Your task to perform on an android device: change notification settings in the gmail app Image 0: 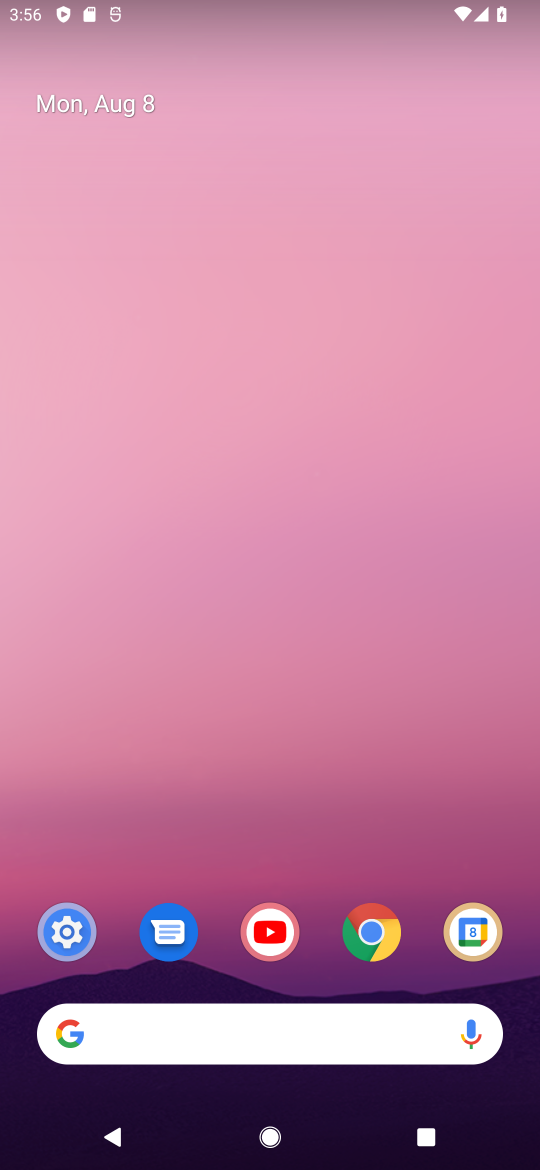
Step 0: drag from (172, 934) to (291, 487)
Your task to perform on an android device: change notification settings in the gmail app Image 1: 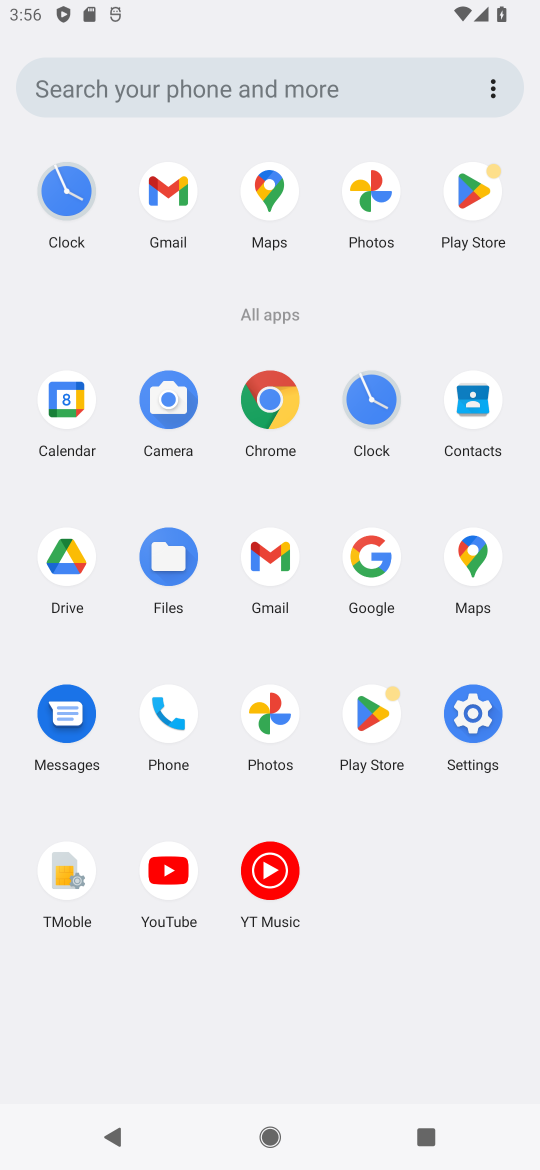
Step 1: click (278, 560)
Your task to perform on an android device: change notification settings in the gmail app Image 2: 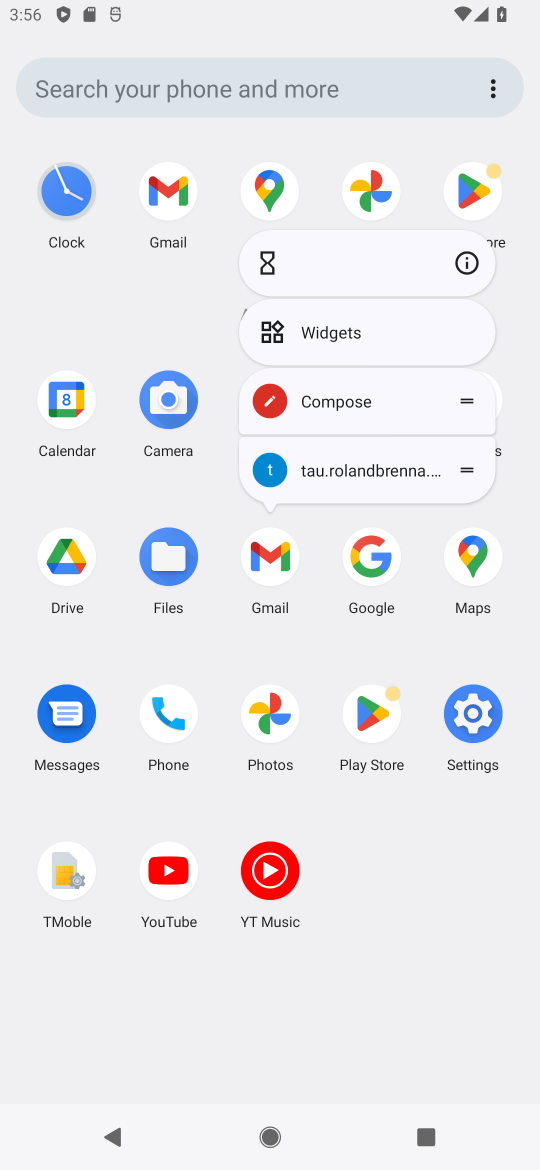
Step 2: click (461, 273)
Your task to perform on an android device: change notification settings in the gmail app Image 3: 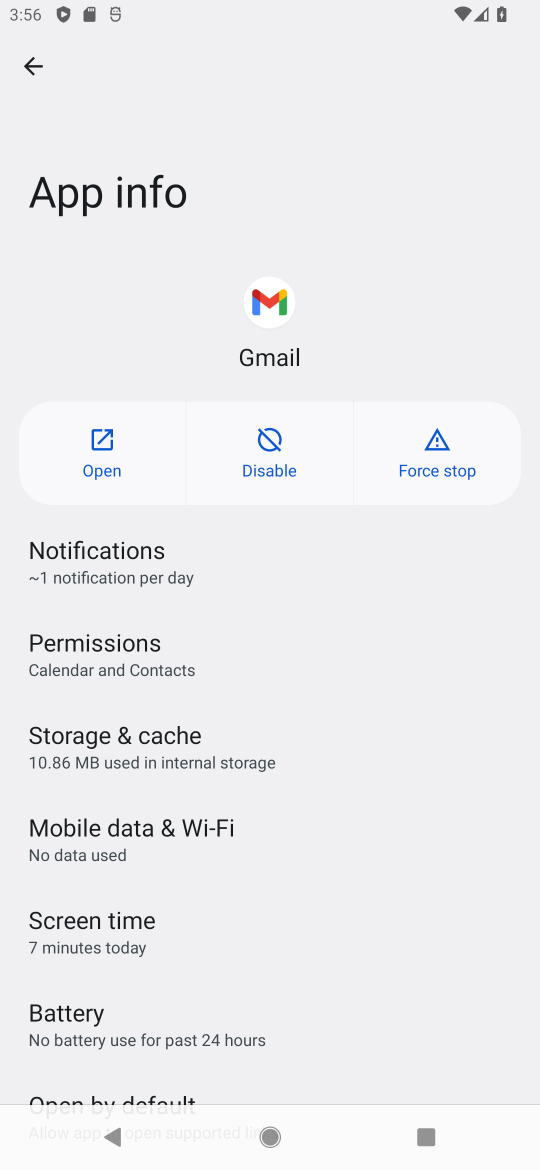
Step 3: click (265, 562)
Your task to perform on an android device: change notification settings in the gmail app Image 4: 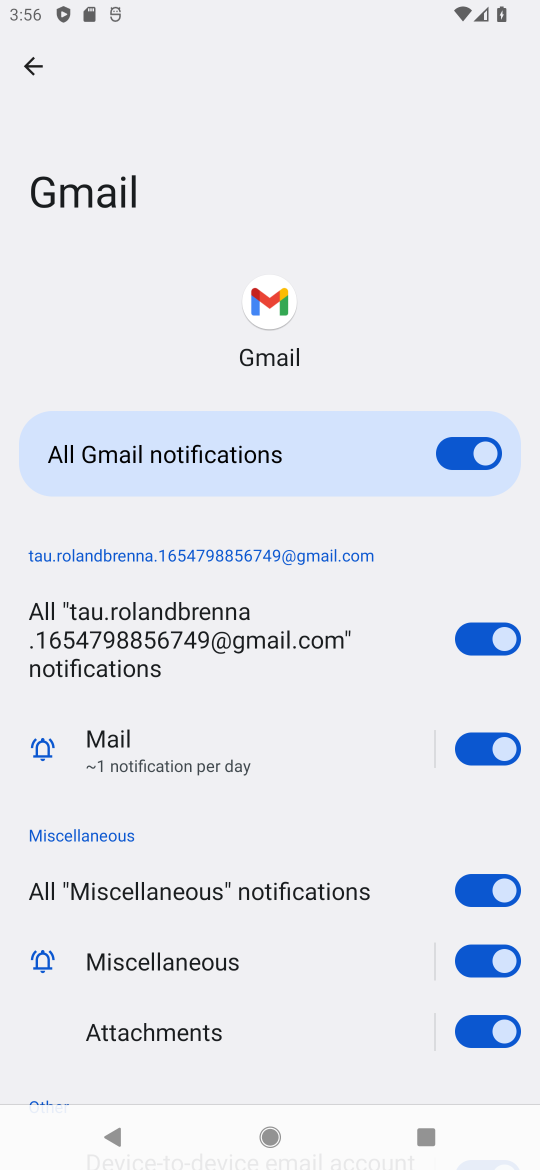
Step 4: click (482, 434)
Your task to perform on an android device: change notification settings in the gmail app Image 5: 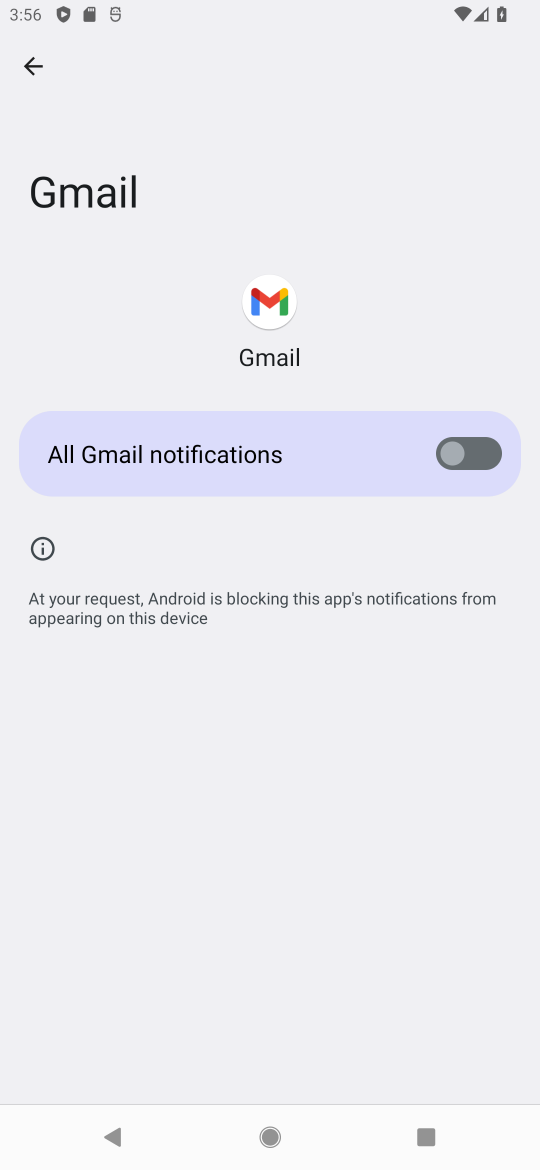
Step 5: task complete